Your task to perform on an android device: allow notifications from all sites in the chrome app Image 0: 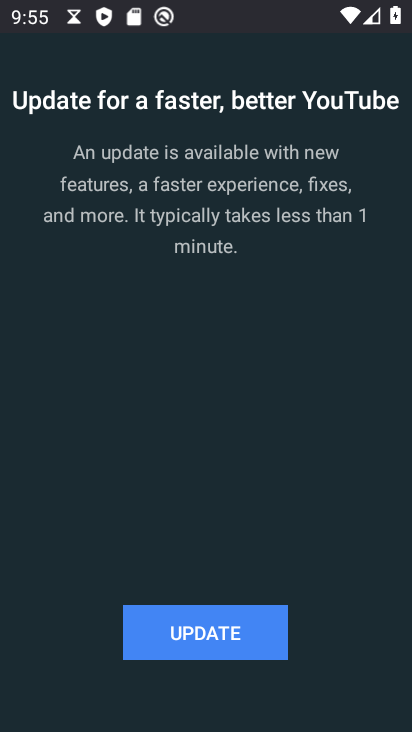
Step 0: press home button
Your task to perform on an android device: allow notifications from all sites in the chrome app Image 1: 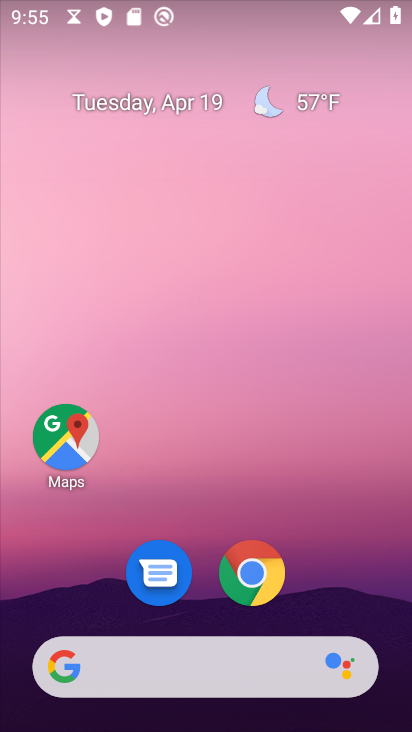
Step 1: drag from (327, 535) to (307, 78)
Your task to perform on an android device: allow notifications from all sites in the chrome app Image 2: 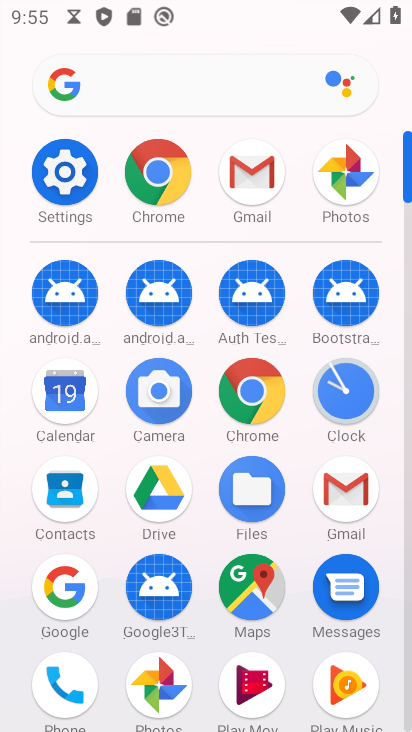
Step 2: click (161, 186)
Your task to perform on an android device: allow notifications from all sites in the chrome app Image 3: 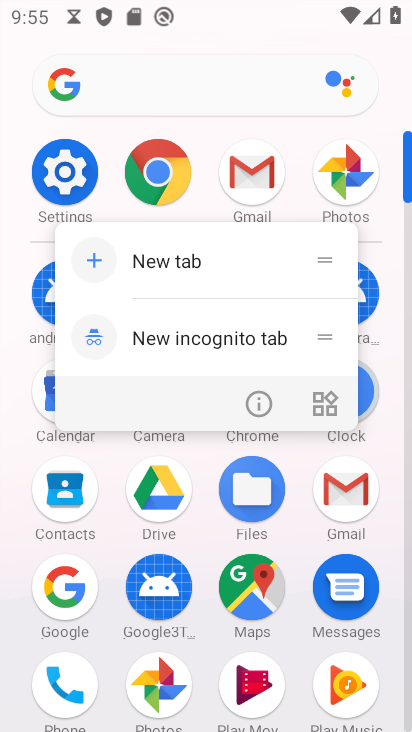
Step 3: click (164, 186)
Your task to perform on an android device: allow notifications from all sites in the chrome app Image 4: 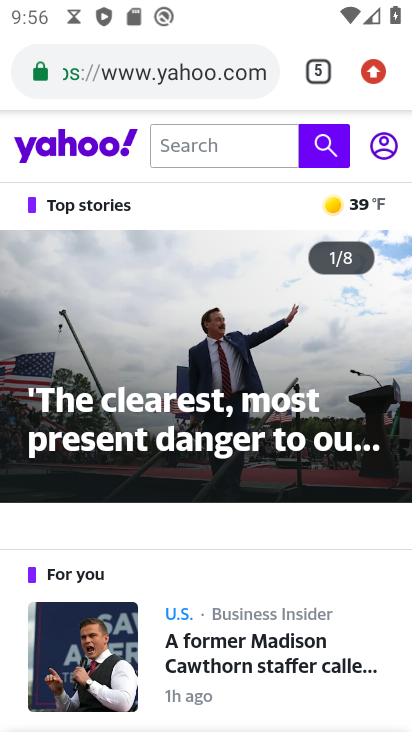
Step 4: click (375, 78)
Your task to perform on an android device: allow notifications from all sites in the chrome app Image 5: 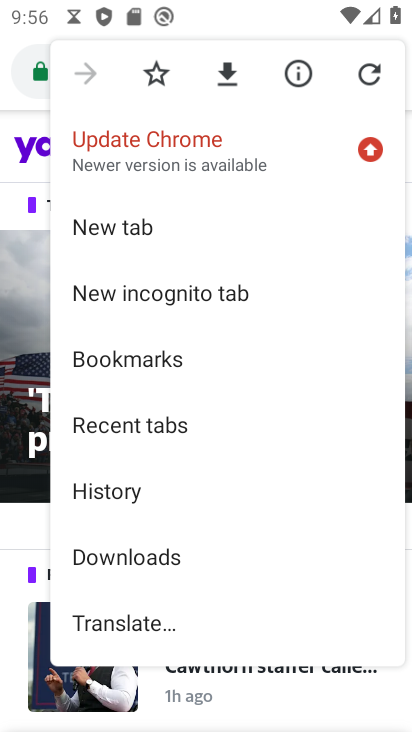
Step 5: drag from (205, 554) to (195, 187)
Your task to perform on an android device: allow notifications from all sites in the chrome app Image 6: 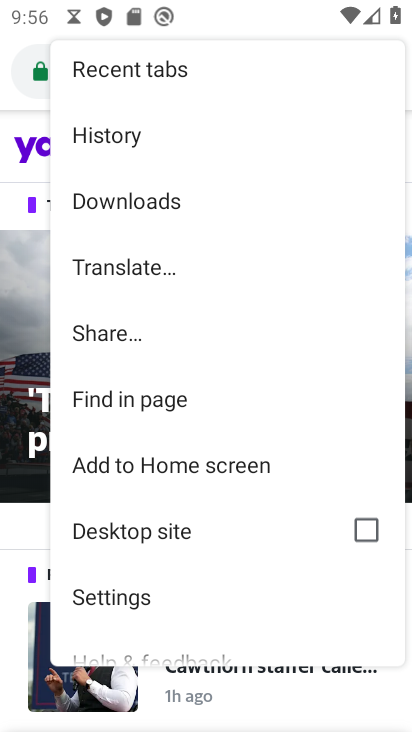
Step 6: click (160, 602)
Your task to perform on an android device: allow notifications from all sites in the chrome app Image 7: 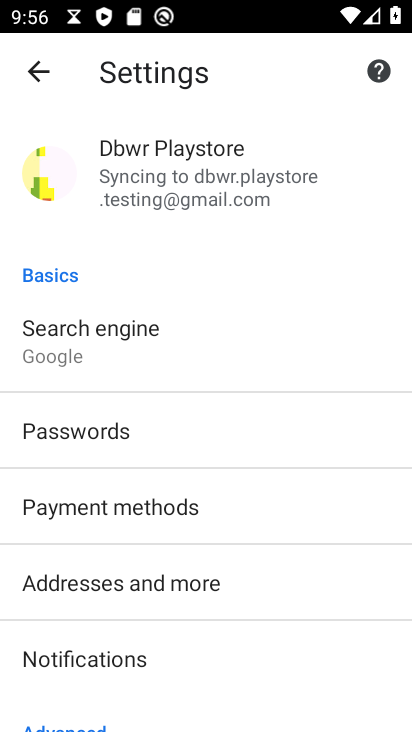
Step 7: click (170, 646)
Your task to perform on an android device: allow notifications from all sites in the chrome app Image 8: 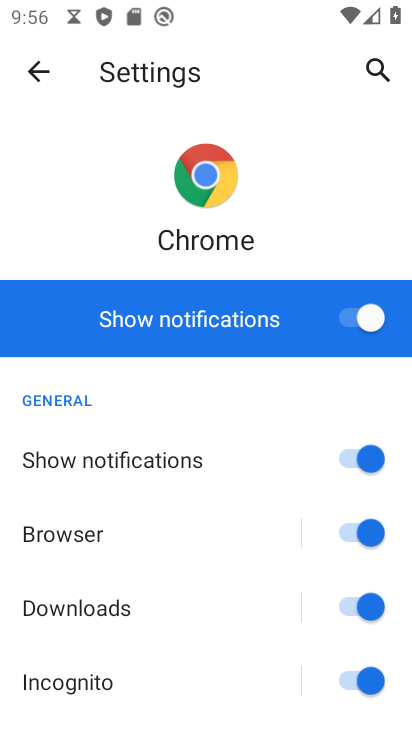
Step 8: task complete